Your task to perform on an android device: Check the weather Image 0: 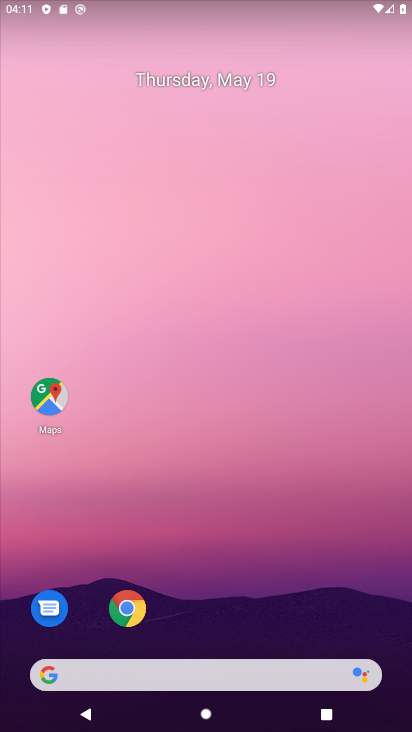
Step 0: drag from (245, 607) to (247, 140)
Your task to perform on an android device: Check the weather Image 1: 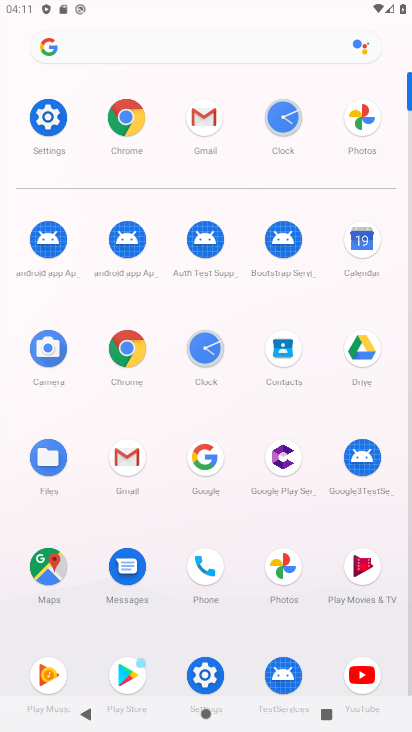
Step 1: click (204, 455)
Your task to perform on an android device: Check the weather Image 2: 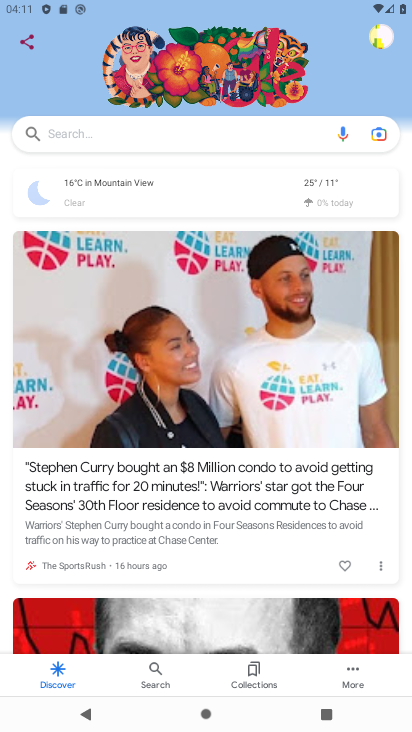
Step 2: click (133, 181)
Your task to perform on an android device: Check the weather Image 3: 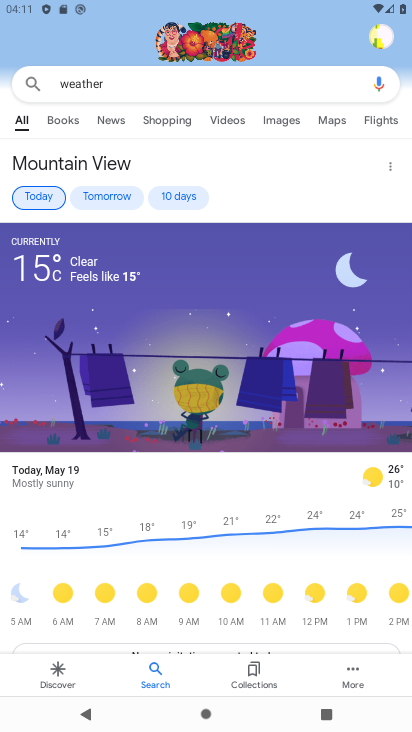
Step 3: task complete